Your task to perform on an android device: Open Wikipedia Image 0: 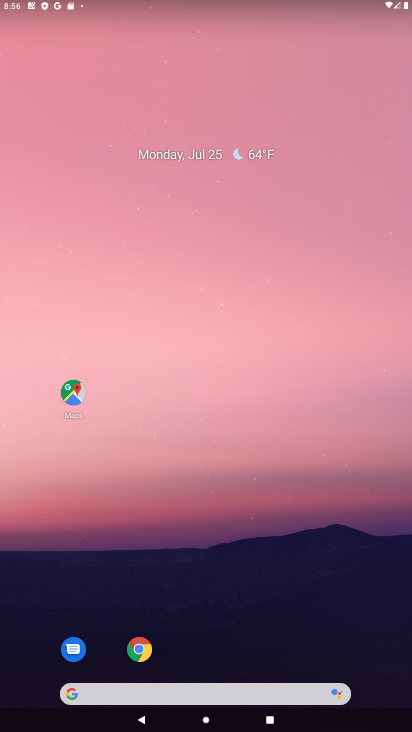
Step 0: click (141, 650)
Your task to perform on an android device: Open Wikipedia Image 1: 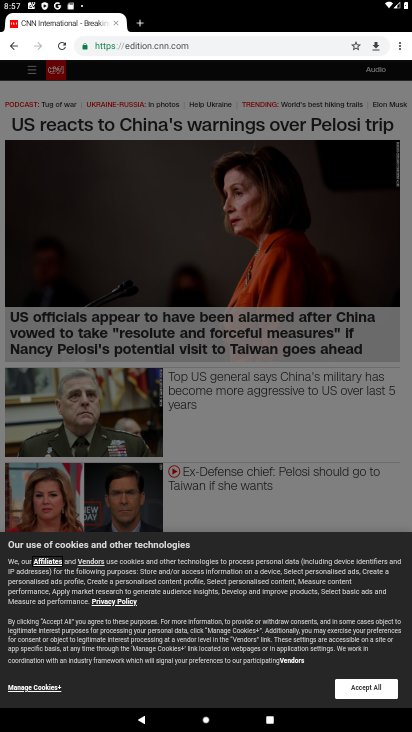
Step 1: click (145, 26)
Your task to perform on an android device: Open Wikipedia Image 2: 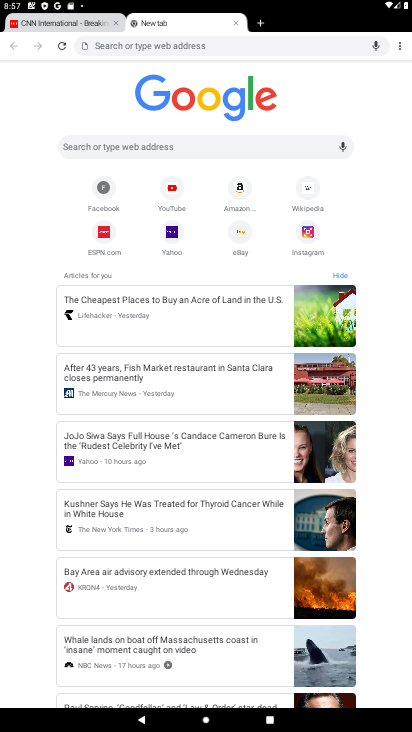
Step 2: click (305, 186)
Your task to perform on an android device: Open Wikipedia Image 3: 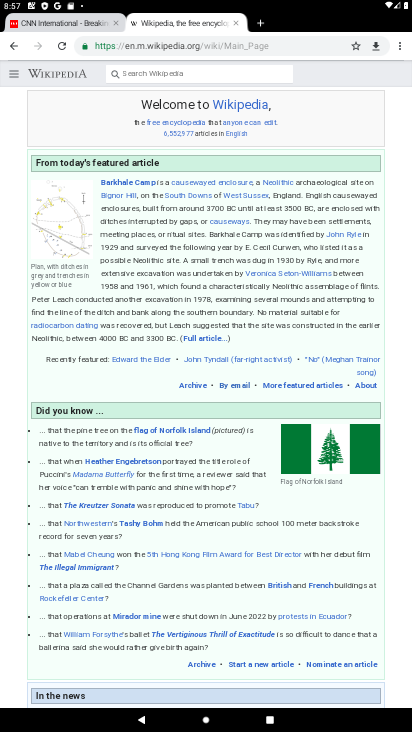
Step 3: task complete